Your task to perform on an android device: open chrome privacy settings Image 0: 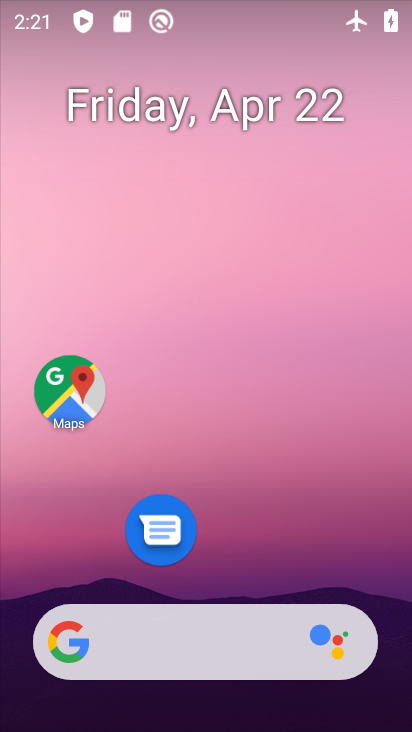
Step 0: drag from (230, 494) to (173, 6)
Your task to perform on an android device: open chrome privacy settings Image 1: 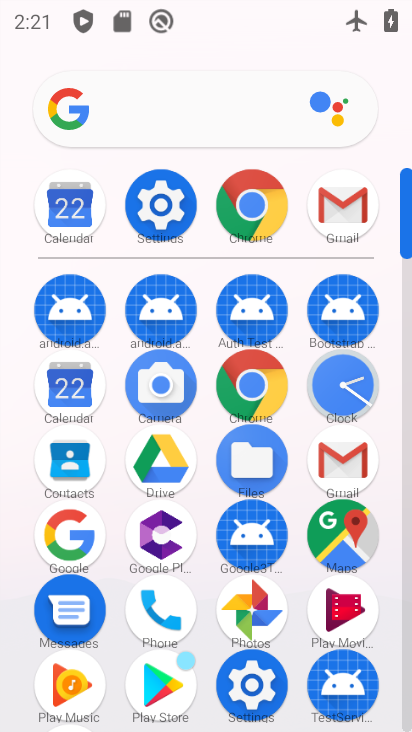
Step 1: click (260, 200)
Your task to perform on an android device: open chrome privacy settings Image 2: 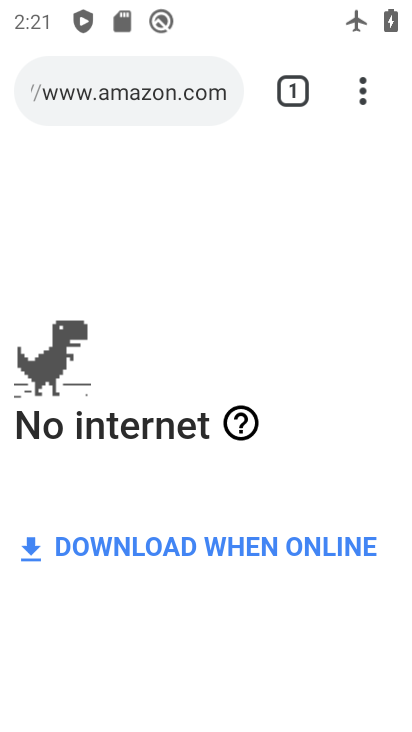
Step 2: click (353, 89)
Your task to perform on an android device: open chrome privacy settings Image 3: 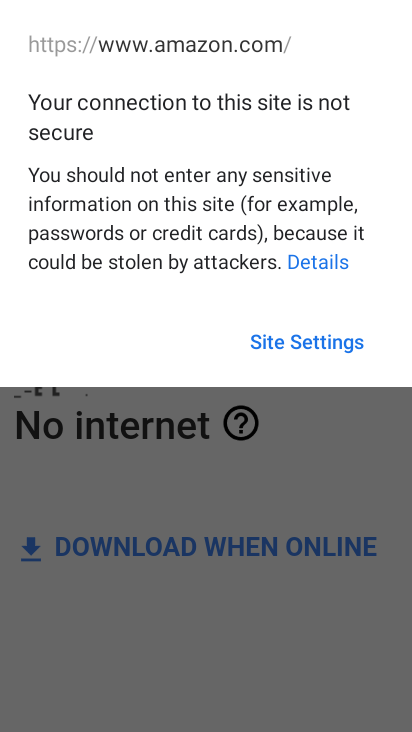
Step 3: click (325, 428)
Your task to perform on an android device: open chrome privacy settings Image 4: 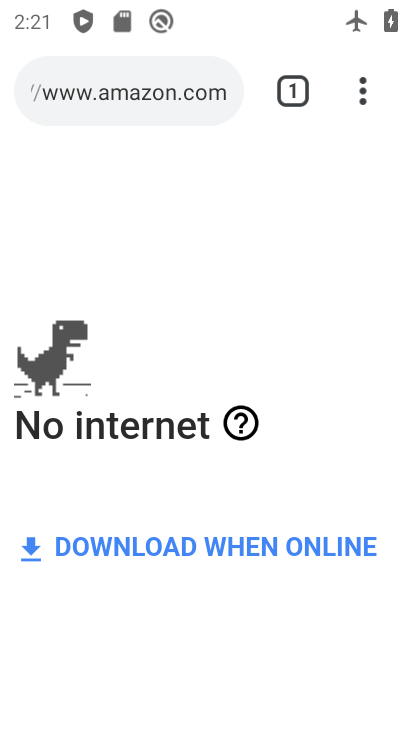
Step 4: click (365, 91)
Your task to perform on an android device: open chrome privacy settings Image 5: 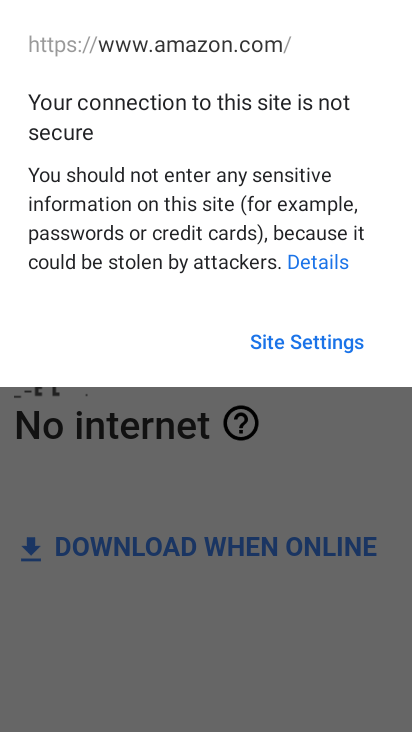
Step 5: click (297, 416)
Your task to perform on an android device: open chrome privacy settings Image 6: 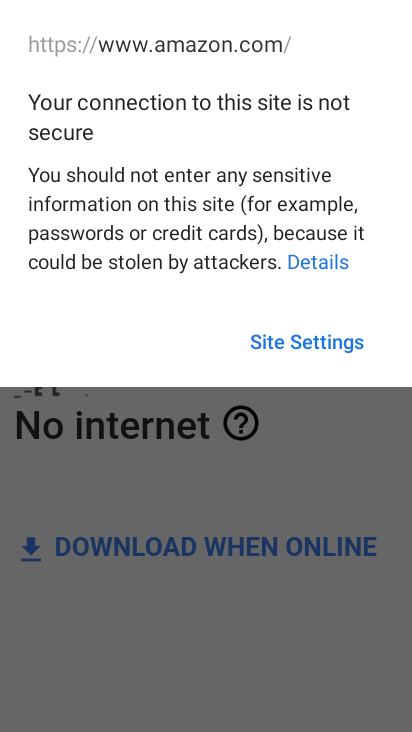
Step 6: click (300, 493)
Your task to perform on an android device: open chrome privacy settings Image 7: 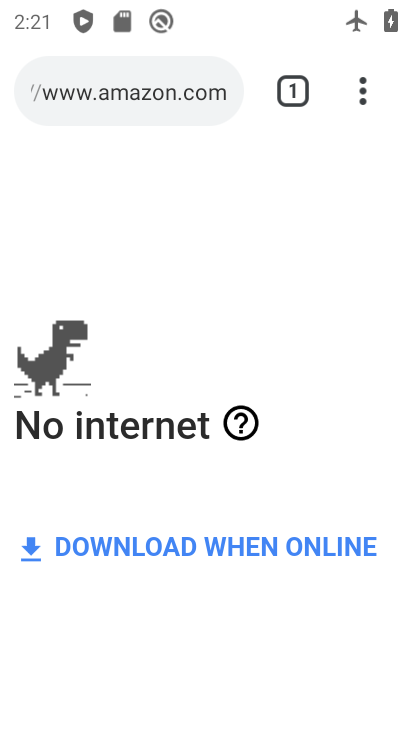
Step 7: click (360, 94)
Your task to perform on an android device: open chrome privacy settings Image 8: 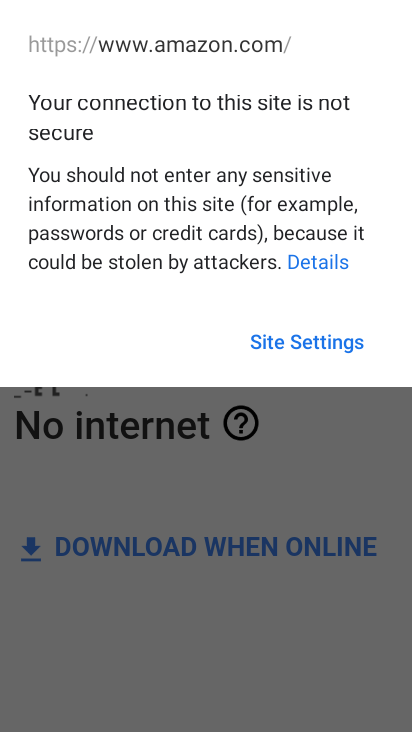
Step 8: click (294, 514)
Your task to perform on an android device: open chrome privacy settings Image 9: 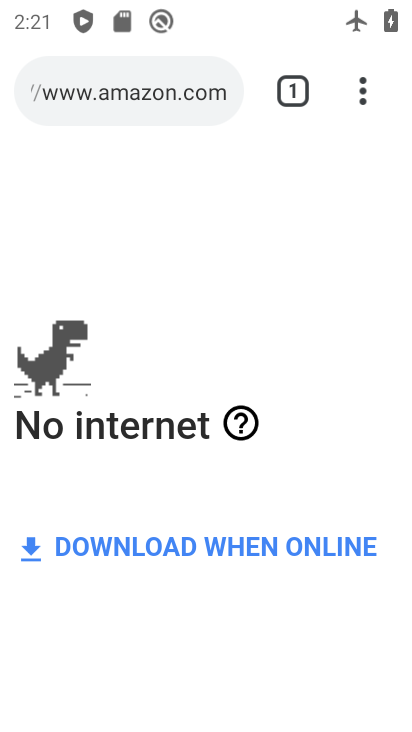
Step 9: click (358, 100)
Your task to perform on an android device: open chrome privacy settings Image 10: 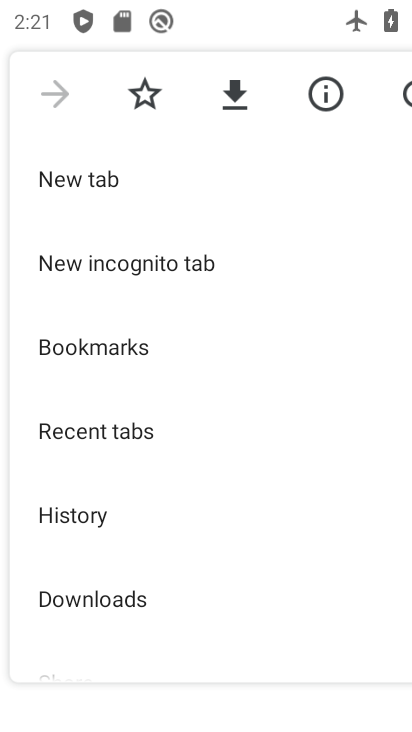
Step 10: drag from (197, 469) to (210, 158)
Your task to perform on an android device: open chrome privacy settings Image 11: 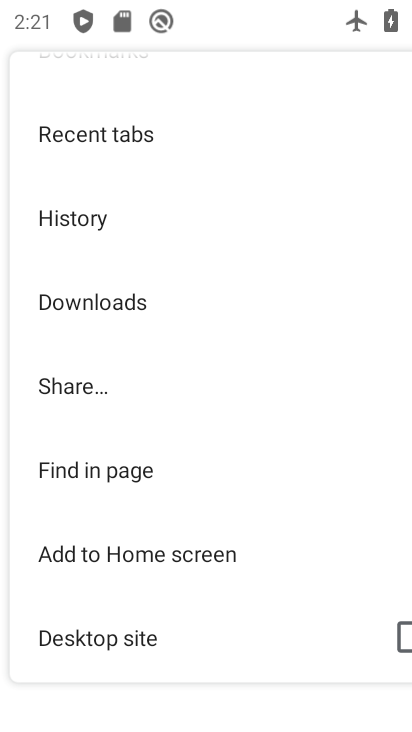
Step 11: drag from (179, 506) to (180, 237)
Your task to perform on an android device: open chrome privacy settings Image 12: 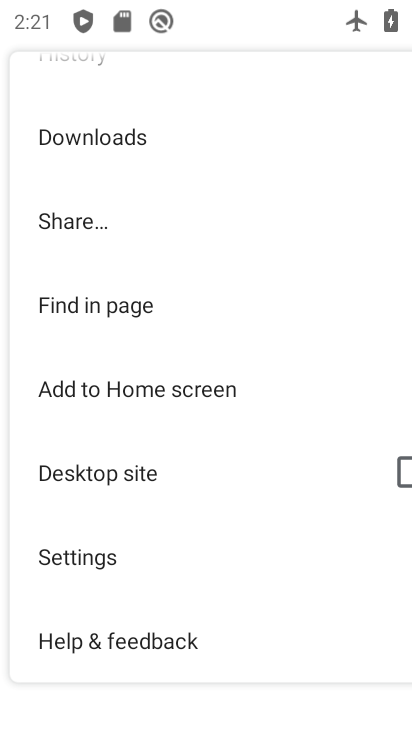
Step 12: click (99, 553)
Your task to perform on an android device: open chrome privacy settings Image 13: 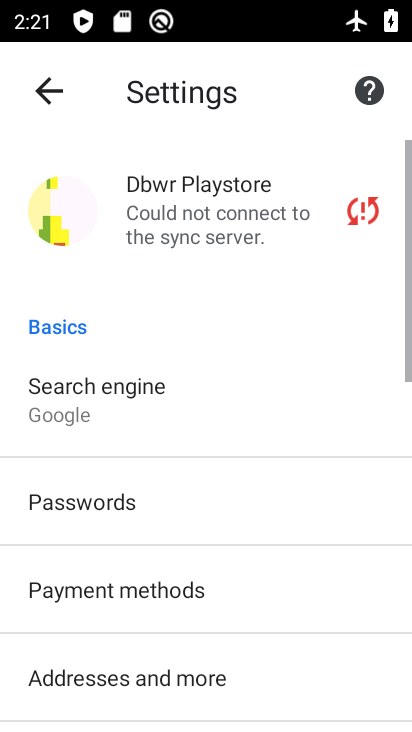
Step 13: drag from (175, 603) to (179, 202)
Your task to perform on an android device: open chrome privacy settings Image 14: 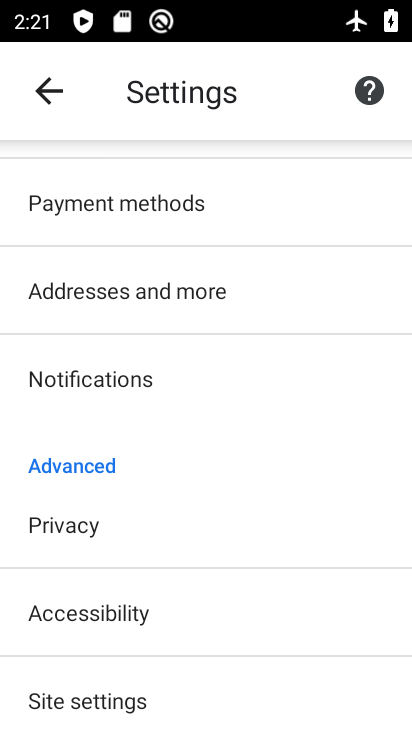
Step 14: click (71, 528)
Your task to perform on an android device: open chrome privacy settings Image 15: 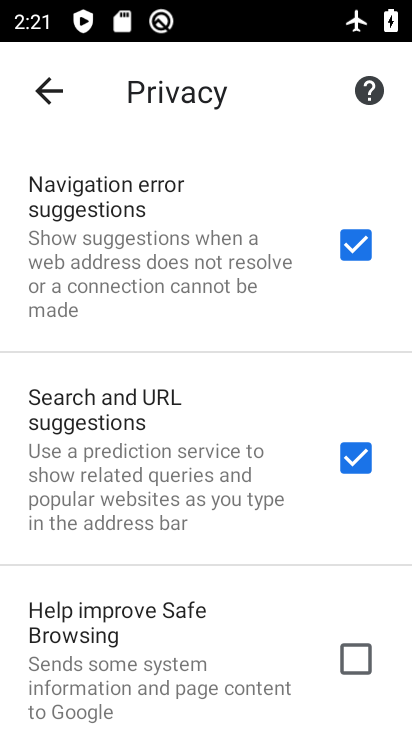
Step 15: task complete